Your task to perform on an android device: stop showing notifications on the lock screen Image 0: 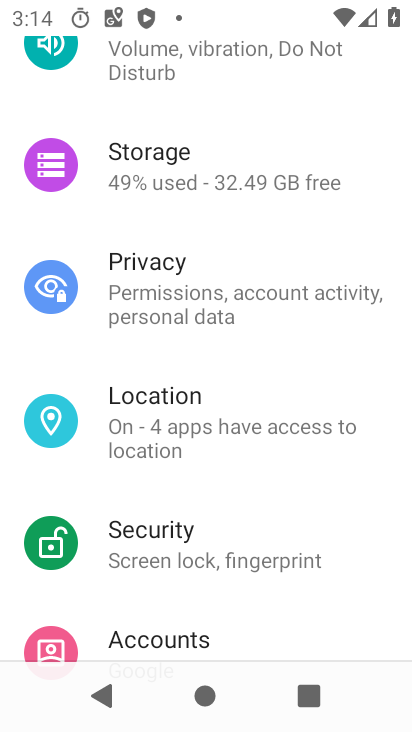
Step 0: drag from (170, 198) to (204, 570)
Your task to perform on an android device: stop showing notifications on the lock screen Image 1: 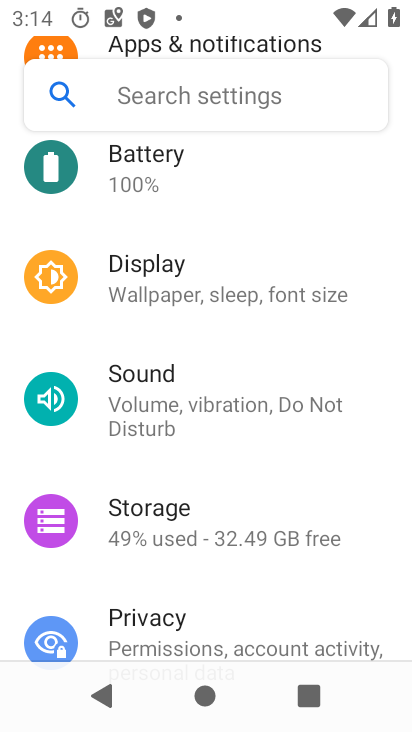
Step 1: drag from (254, 251) to (234, 597)
Your task to perform on an android device: stop showing notifications on the lock screen Image 2: 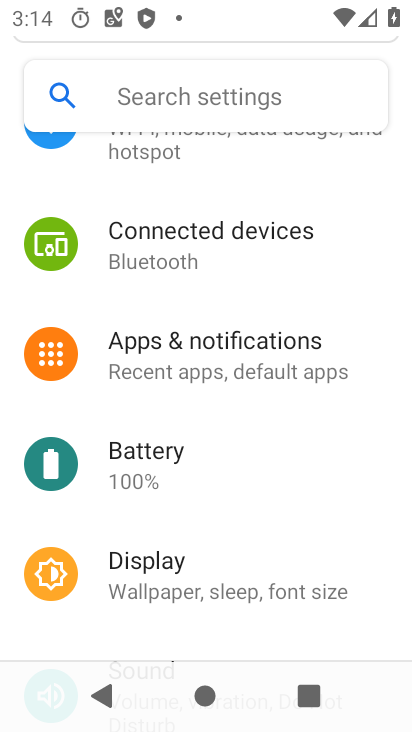
Step 2: click (244, 372)
Your task to perform on an android device: stop showing notifications on the lock screen Image 3: 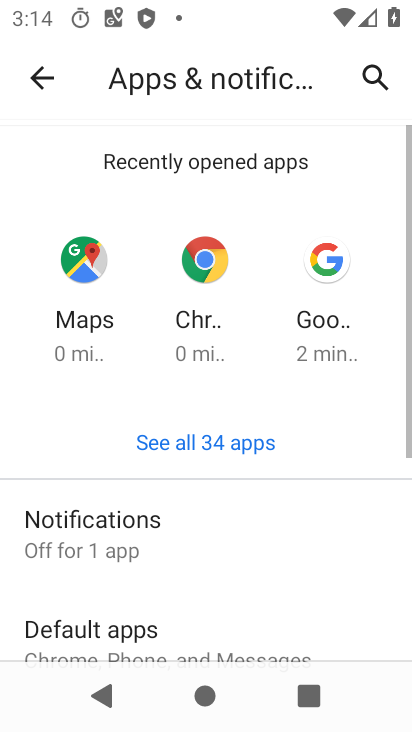
Step 3: click (101, 517)
Your task to perform on an android device: stop showing notifications on the lock screen Image 4: 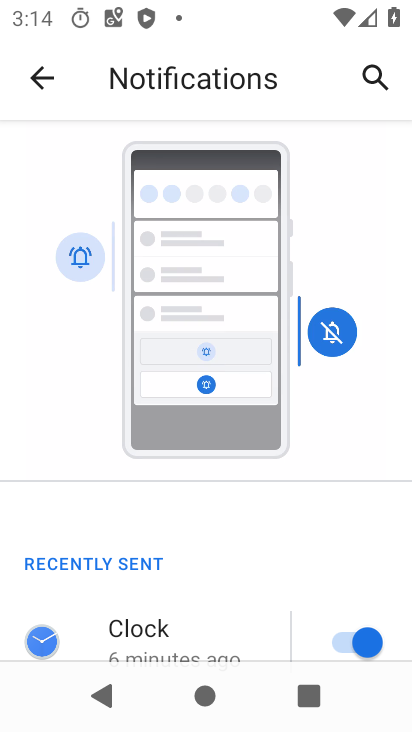
Step 4: drag from (172, 571) to (258, 164)
Your task to perform on an android device: stop showing notifications on the lock screen Image 5: 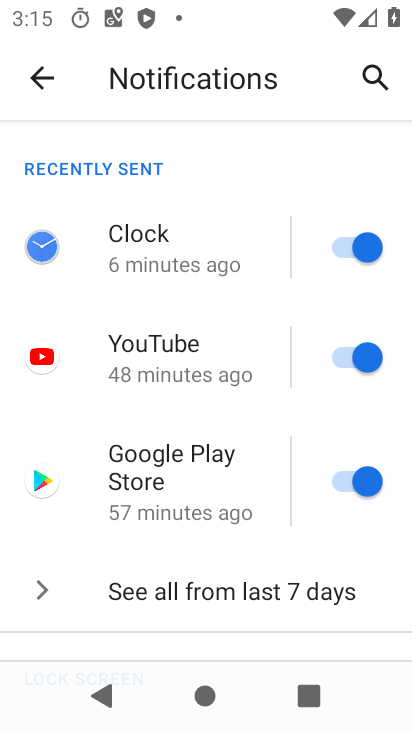
Step 5: drag from (185, 544) to (272, 48)
Your task to perform on an android device: stop showing notifications on the lock screen Image 6: 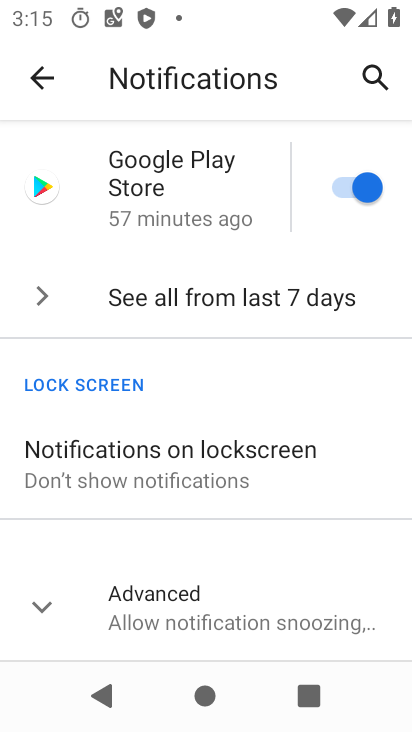
Step 6: click (167, 465)
Your task to perform on an android device: stop showing notifications on the lock screen Image 7: 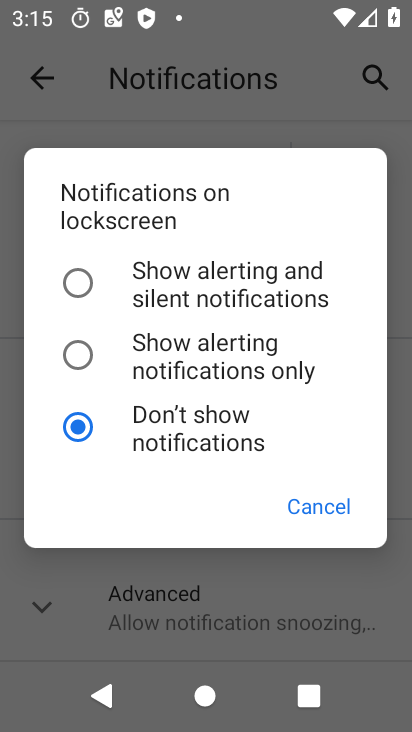
Step 7: task complete